Your task to perform on an android device: Toggle the flashlight Image 0: 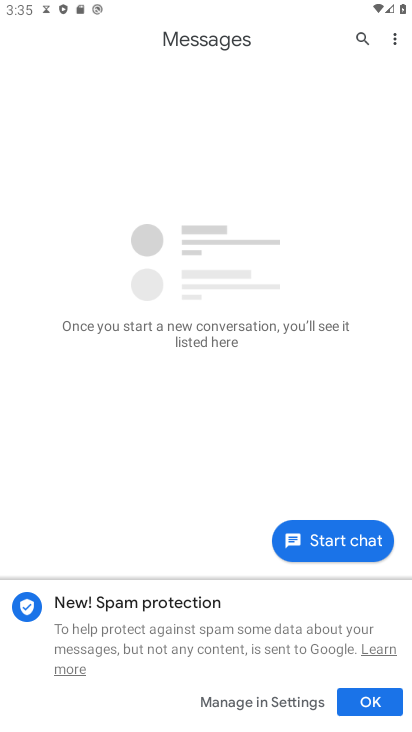
Step 0: press home button
Your task to perform on an android device: Toggle the flashlight Image 1: 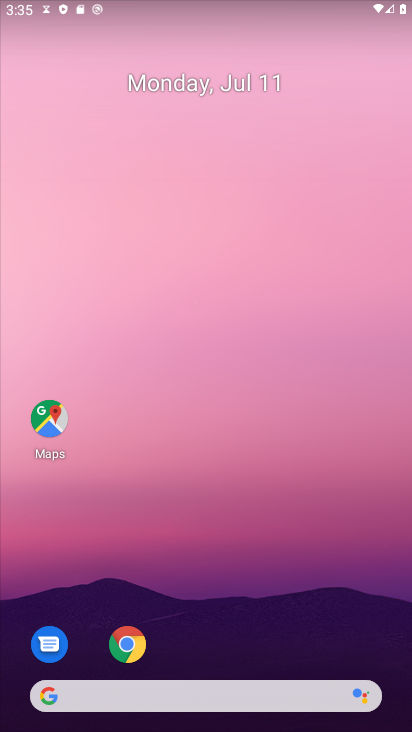
Step 1: drag from (244, 727) to (216, 207)
Your task to perform on an android device: Toggle the flashlight Image 2: 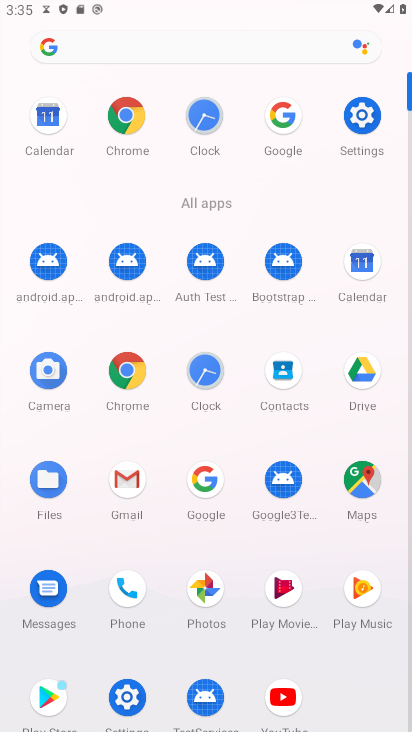
Step 2: click (365, 113)
Your task to perform on an android device: Toggle the flashlight Image 3: 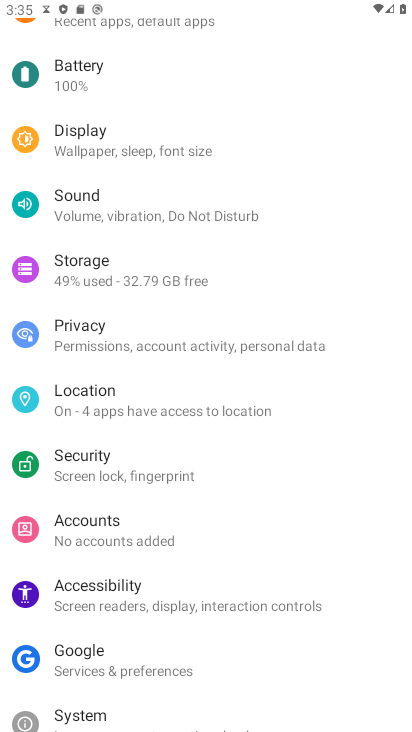
Step 3: task complete